Your task to perform on an android device: delete browsing data in the chrome app Image 0: 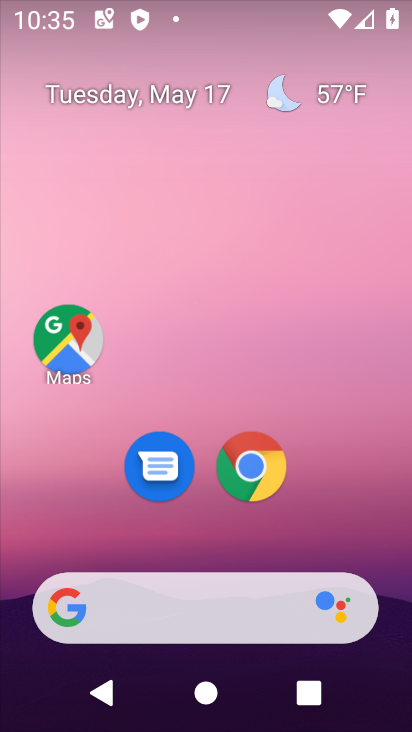
Step 0: click (242, 491)
Your task to perform on an android device: delete browsing data in the chrome app Image 1: 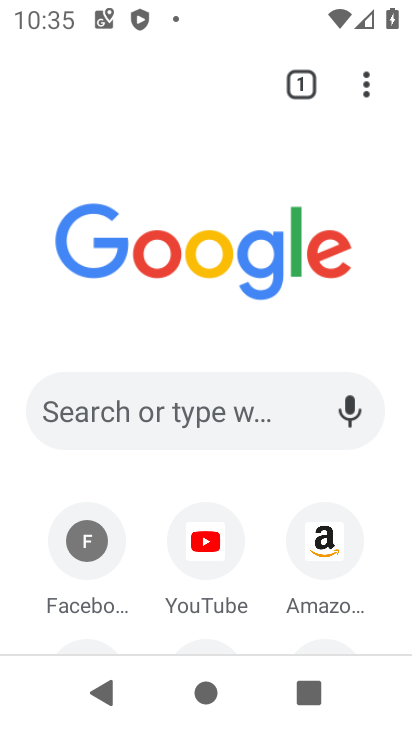
Step 1: drag from (380, 94) to (277, 524)
Your task to perform on an android device: delete browsing data in the chrome app Image 2: 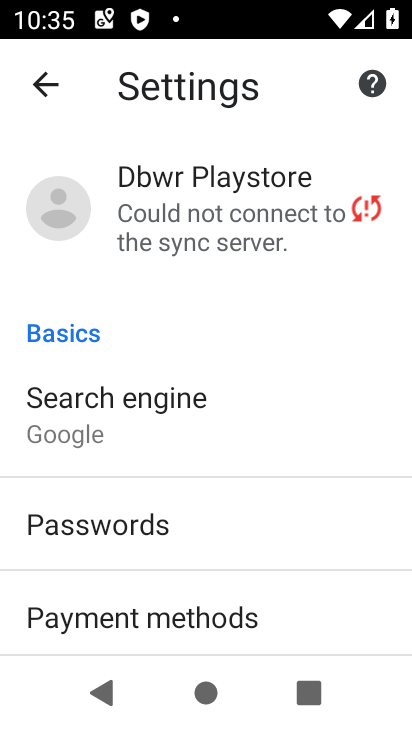
Step 2: drag from (125, 586) to (295, 72)
Your task to perform on an android device: delete browsing data in the chrome app Image 3: 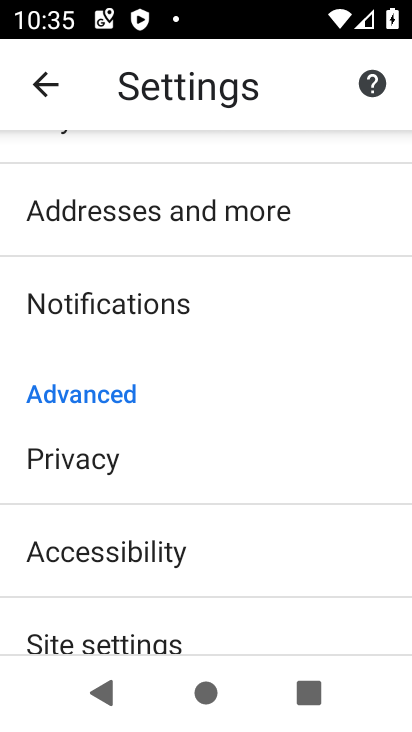
Step 3: click (165, 476)
Your task to perform on an android device: delete browsing data in the chrome app Image 4: 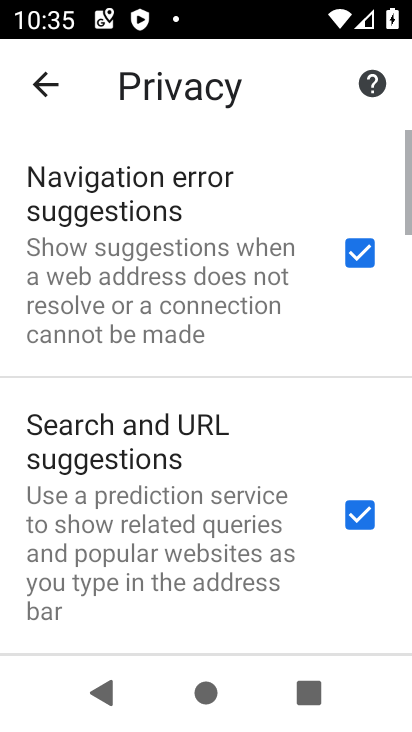
Step 4: drag from (160, 651) to (372, 49)
Your task to perform on an android device: delete browsing data in the chrome app Image 5: 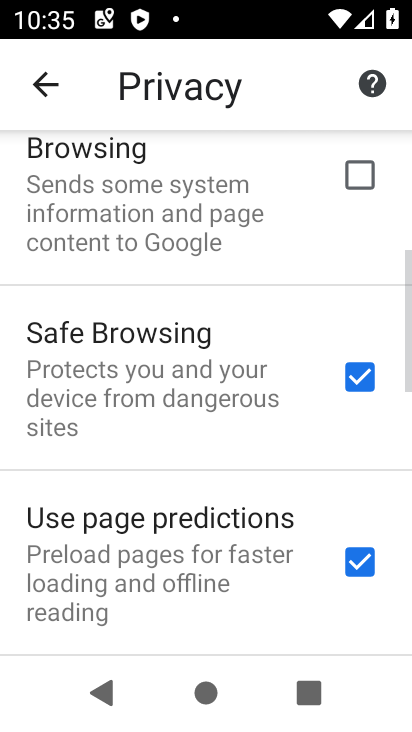
Step 5: drag from (198, 631) to (332, 76)
Your task to perform on an android device: delete browsing data in the chrome app Image 6: 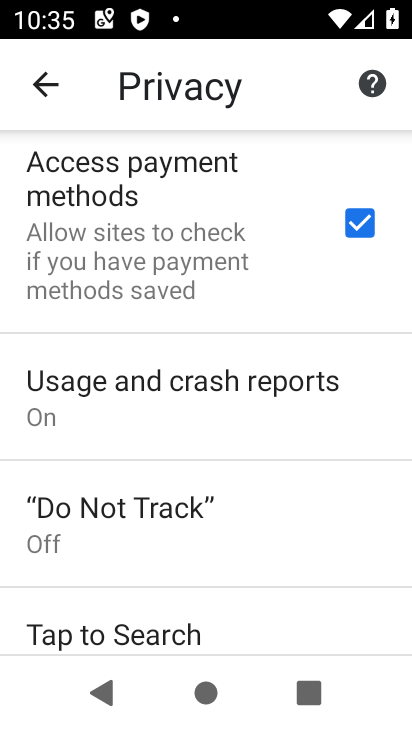
Step 6: drag from (148, 623) to (294, 106)
Your task to perform on an android device: delete browsing data in the chrome app Image 7: 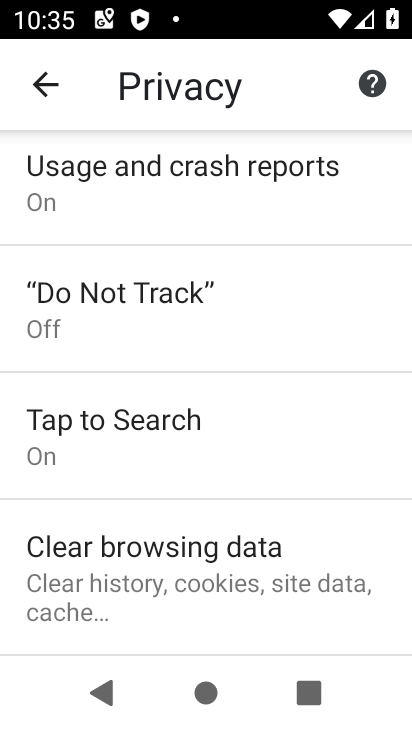
Step 7: click (178, 613)
Your task to perform on an android device: delete browsing data in the chrome app Image 8: 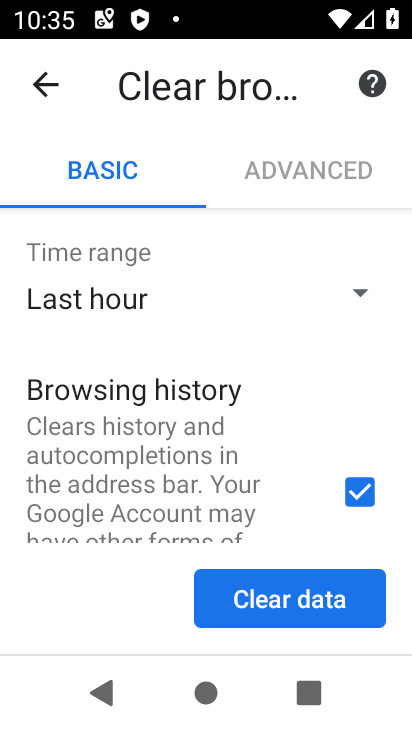
Step 8: drag from (181, 468) to (313, 48)
Your task to perform on an android device: delete browsing data in the chrome app Image 9: 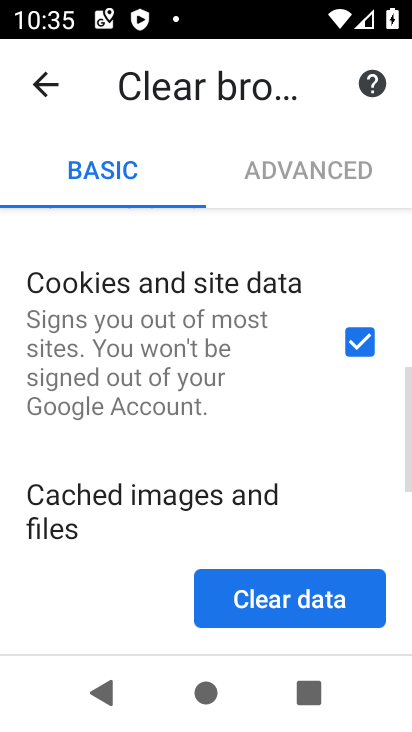
Step 9: drag from (205, 443) to (320, 152)
Your task to perform on an android device: delete browsing data in the chrome app Image 10: 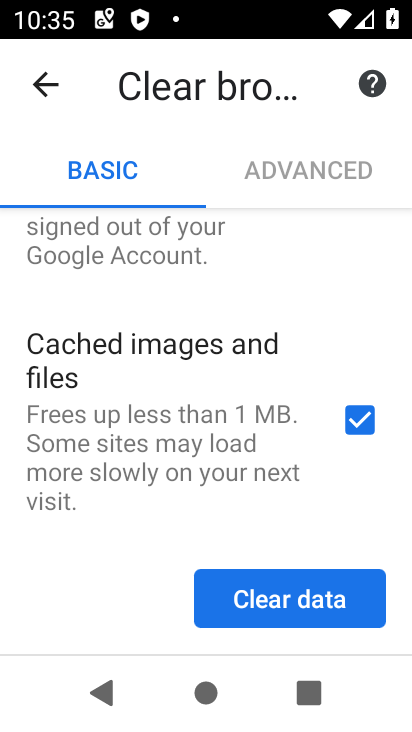
Step 10: click (317, 610)
Your task to perform on an android device: delete browsing data in the chrome app Image 11: 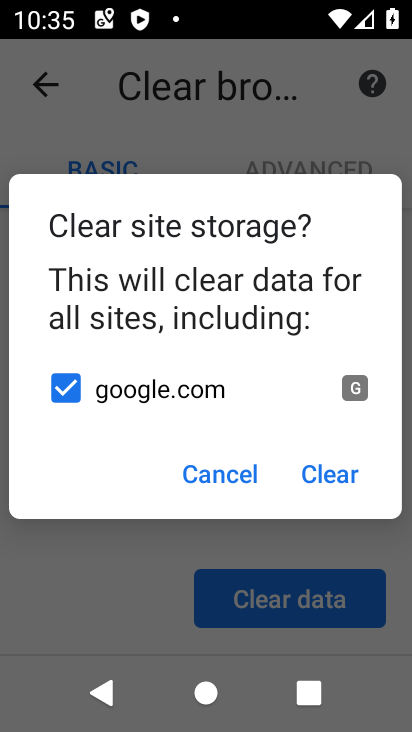
Step 11: click (342, 477)
Your task to perform on an android device: delete browsing data in the chrome app Image 12: 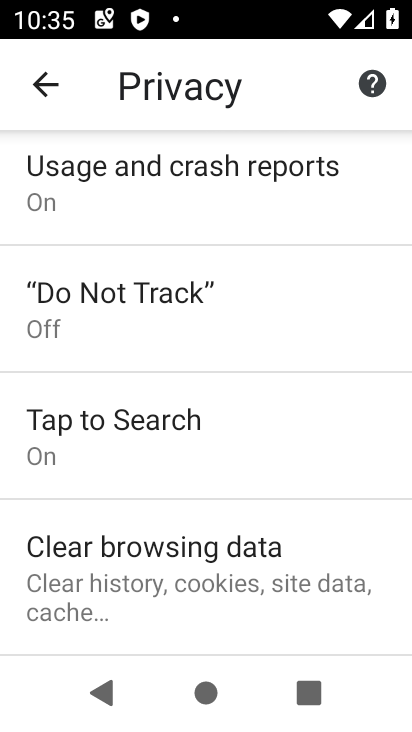
Step 12: task complete